Your task to perform on an android device: turn on the 12-hour format for clock Image 0: 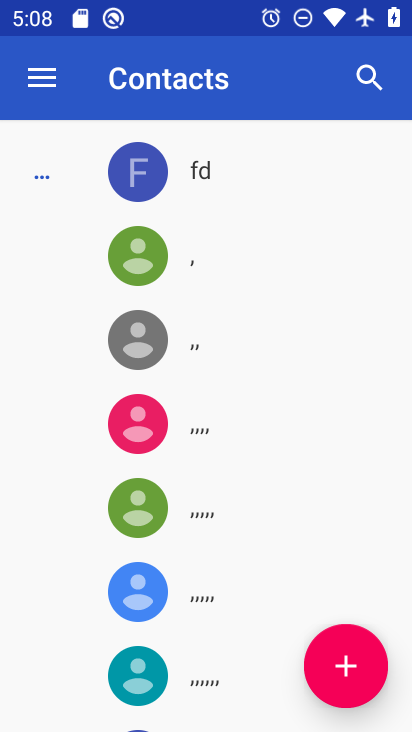
Step 0: press home button
Your task to perform on an android device: turn on the 12-hour format for clock Image 1: 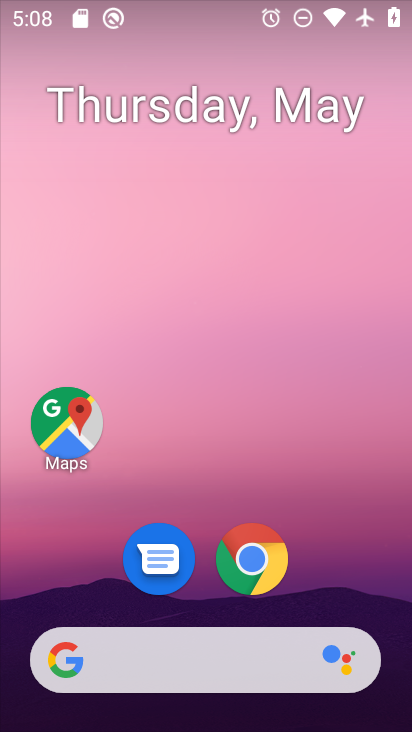
Step 1: drag from (364, 559) to (217, 55)
Your task to perform on an android device: turn on the 12-hour format for clock Image 2: 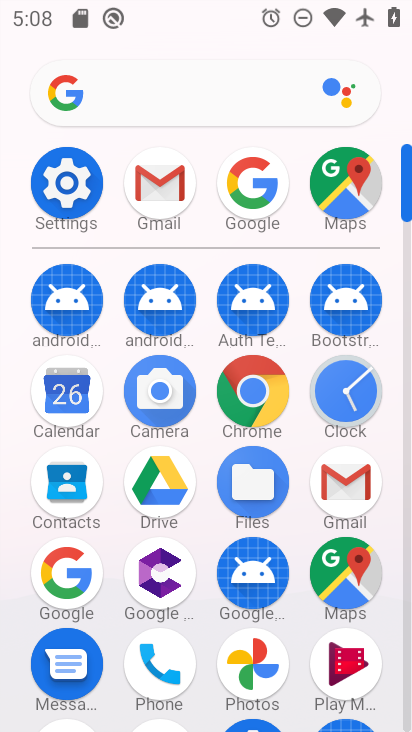
Step 2: click (72, 194)
Your task to perform on an android device: turn on the 12-hour format for clock Image 3: 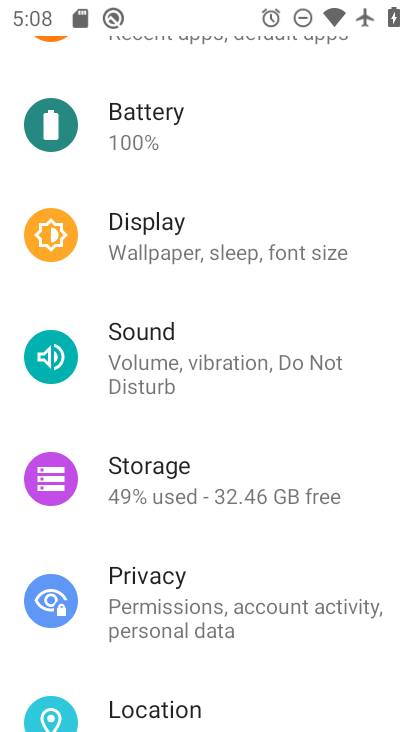
Step 3: press home button
Your task to perform on an android device: turn on the 12-hour format for clock Image 4: 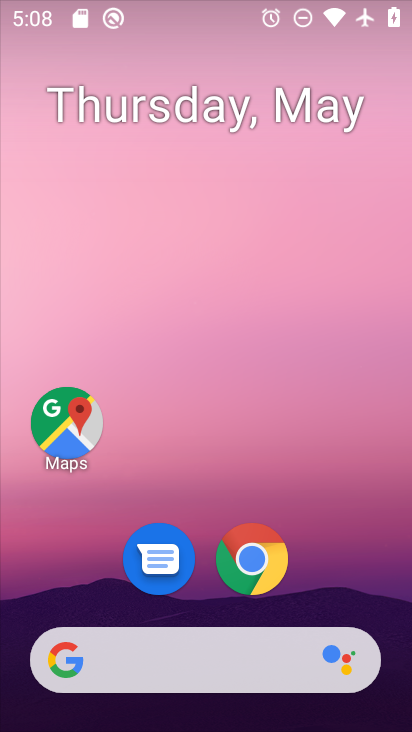
Step 4: drag from (349, 543) to (238, 21)
Your task to perform on an android device: turn on the 12-hour format for clock Image 5: 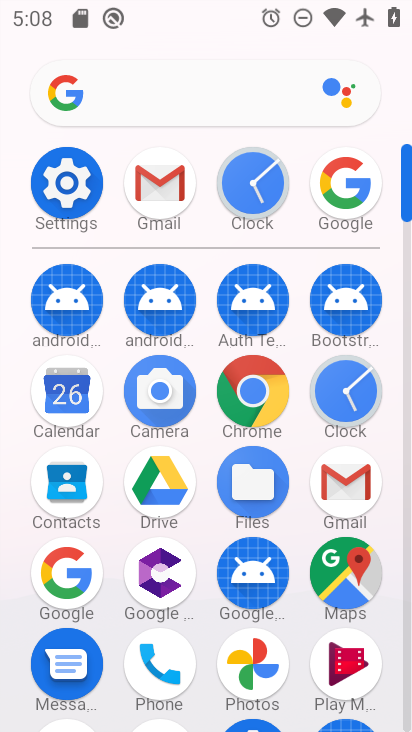
Step 5: click (353, 390)
Your task to perform on an android device: turn on the 12-hour format for clock Image 6: 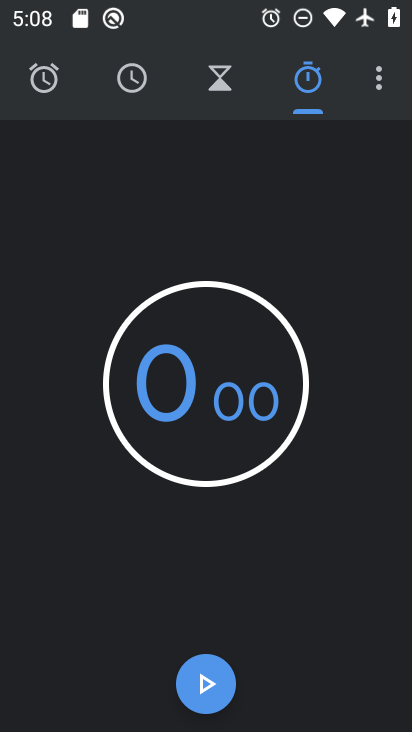
Step 6: click (371, 81)
Your task to perform on an android device: turn on the 12-hour format for clock Image 7: 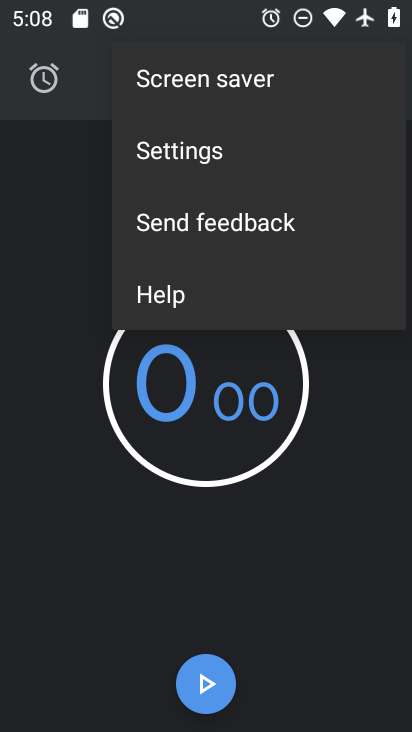
Step 7: click (209, 166)
Your task to perform on an android device: turn on the 12-hour format for clock Image 8: 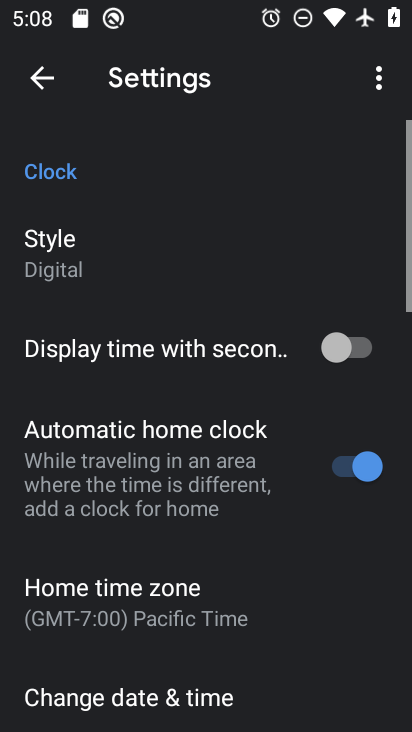
Step 8: drag from (272, 616) to (234, 151)
Your task to perform on an android device: turn on the 12-hour format for clock Image 9: 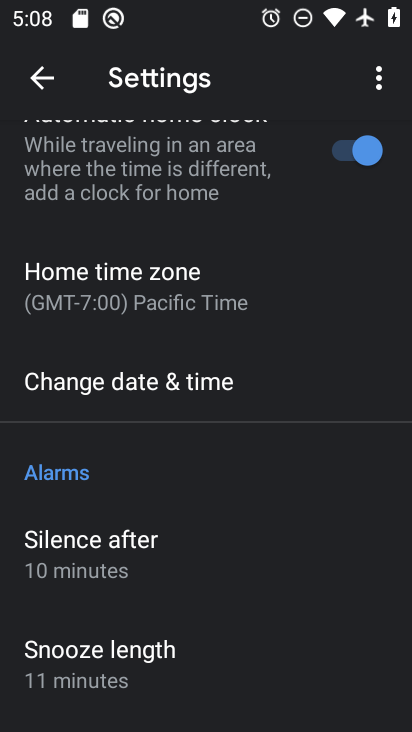
Step 9: click (216, 397)
Your task to perform on an android device: turn on the 12-hour format for clock Image 10: 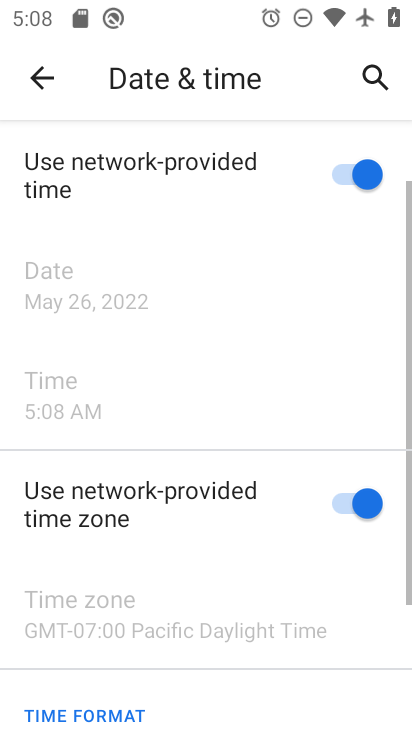
Step 10: task complete